Your task to perform on an android device: Go to CNN.com Image 0: 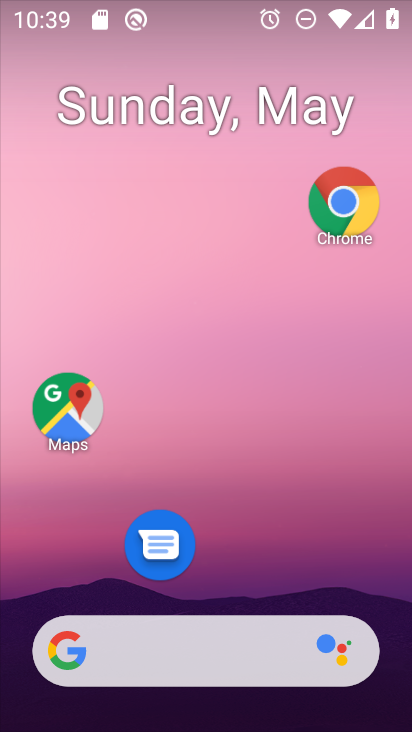
Step 0: click (348, 178)
Your task to perform on an android device: Go to CNN.com Image 1: 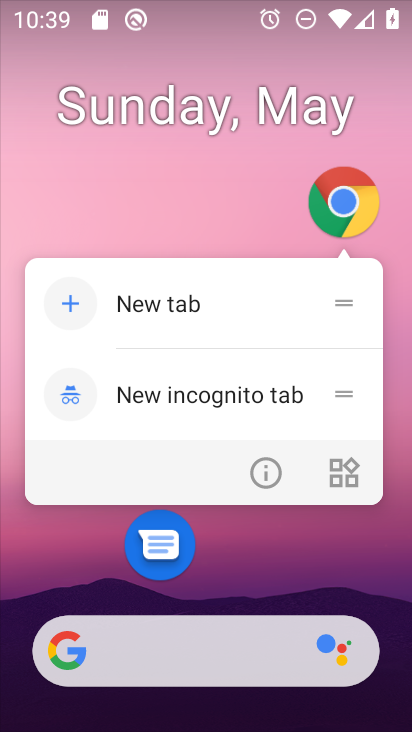
Step 1: click (335, 170)
Your task to perform on an android device: Go to CNN.com Image 2: 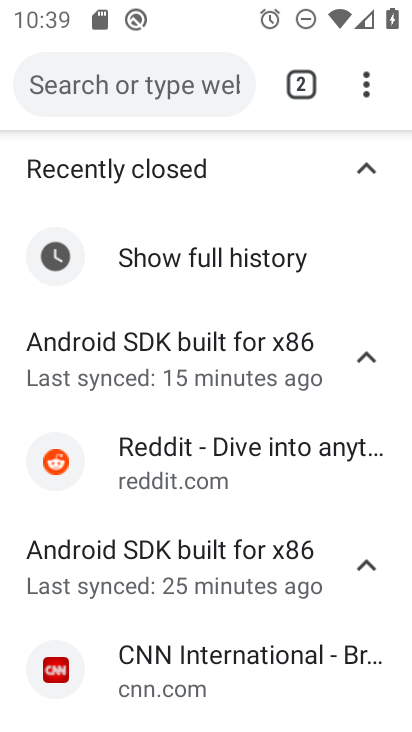
Step 2: click (194, 99)
Your task to perform on an android device: Go to CNN.com Image 3: 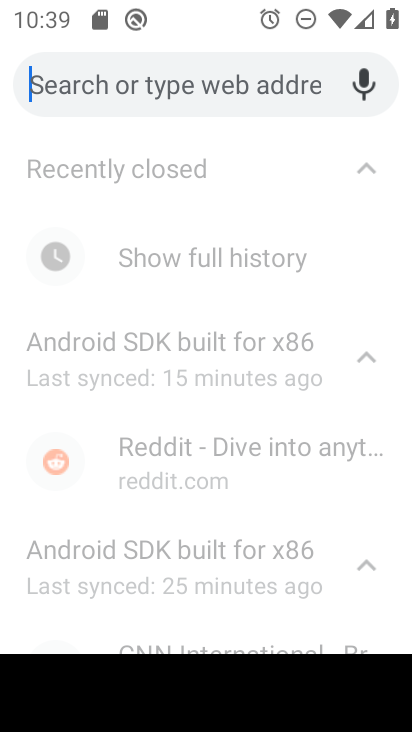
Step 3: type "CNN.com"
Your task to perform on an android device: Go to CNN.com Image 4: 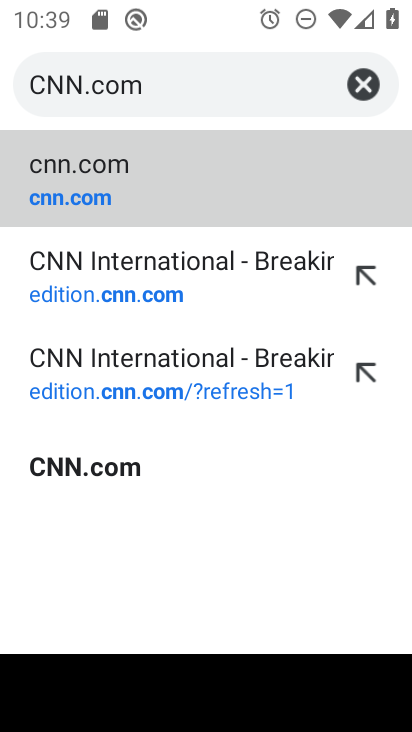
Step 4: click (79, 165)
Your task to perform on an android device: Go to CNN.com Image 5: 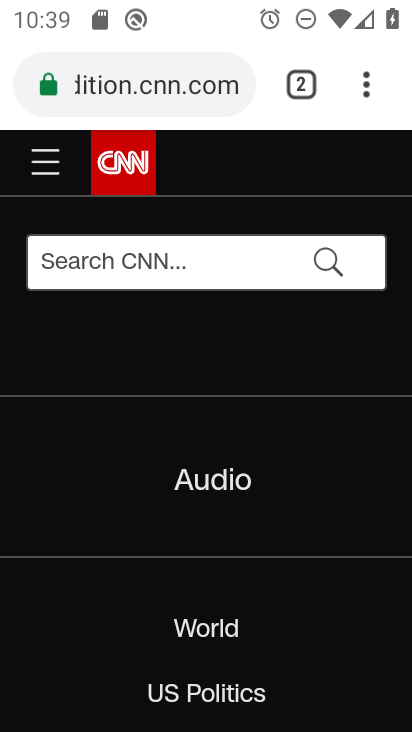
Step 5: task complete